Your task to perform on an android device: See recent photos Image 0: 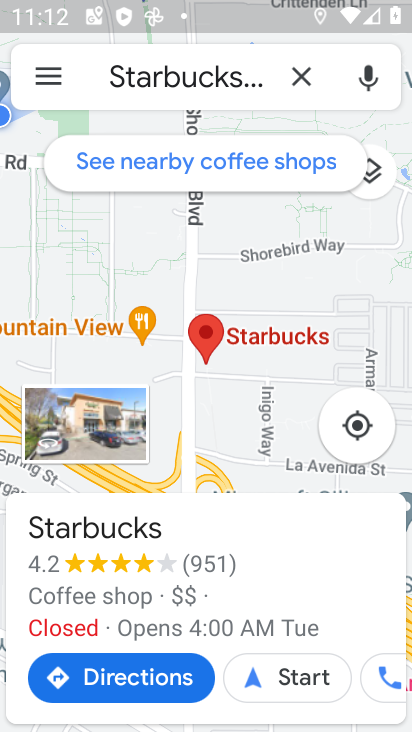
Step 0: press home button
Your task to perform on an android device: See recent photos Image 1: 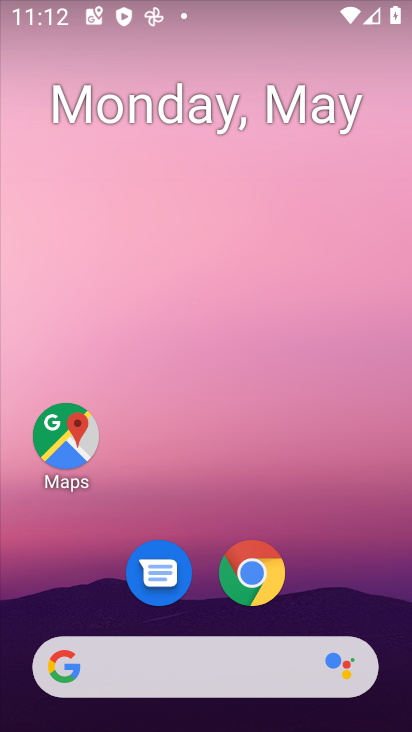
Step 1: drag from (380, 601) to (304, 25)
Your task to perform on an android device: See recent photos Image 2: 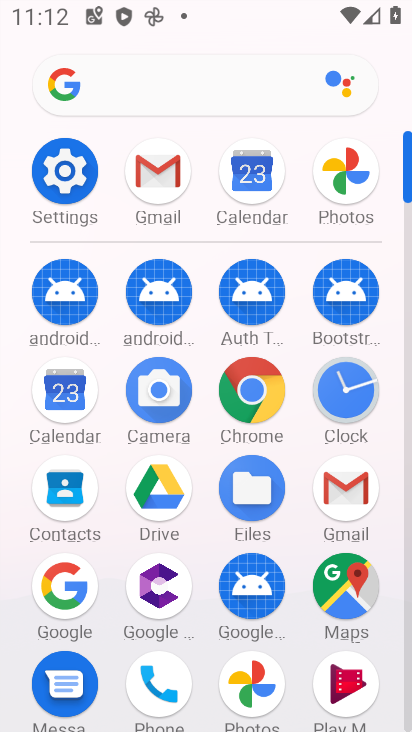
Step 2: click (339, 185)
Your task to perform on an android device: See recent photos Image 3: 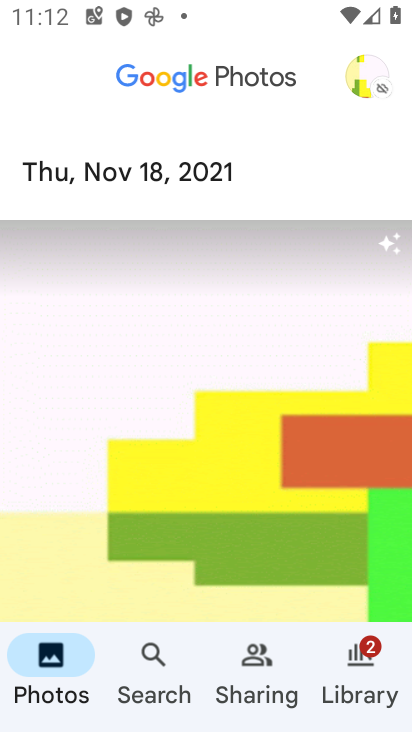
Step 3: task complete